Your task to perform on an android device: open sync settings in chrome Image 0: 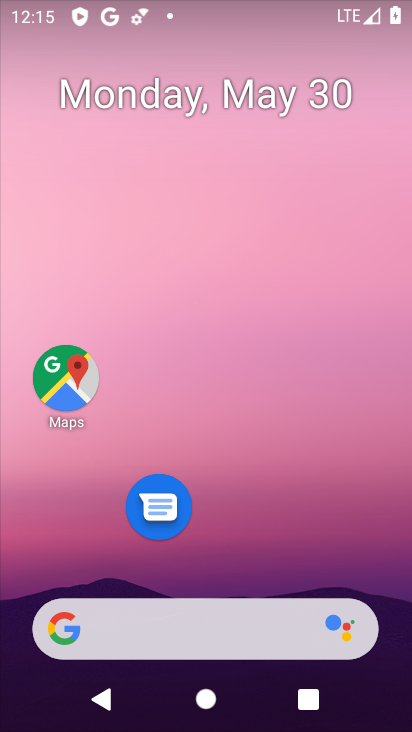
Step 0: drag from (255, 561) to (366, 54)
Your task to perform on an android device: open sync settings in chrome Image 1: 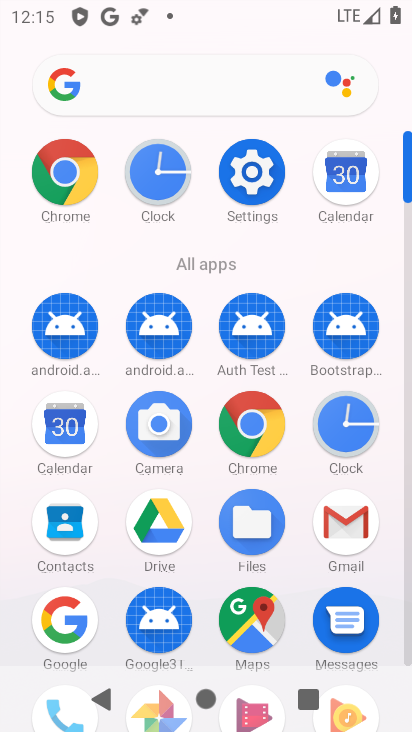
Step 1: click (249, 411)
Your task to perform on an android device: open sync settings in chrome Image 2: 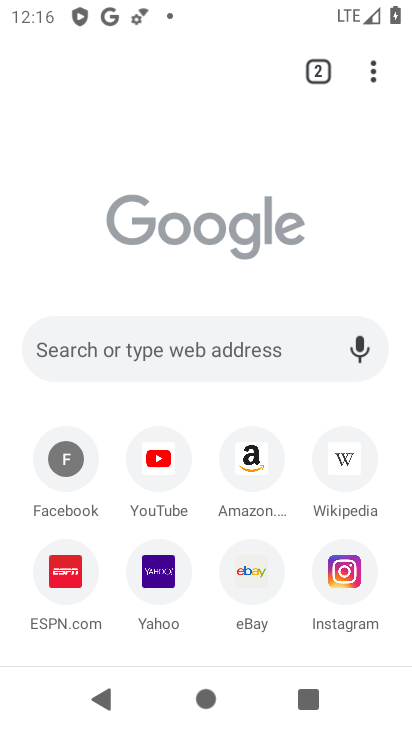
Step 2: drag from (376, 63) to (128, 494)
Your task to perform on an android device: open sync settings in chrome Image 3: 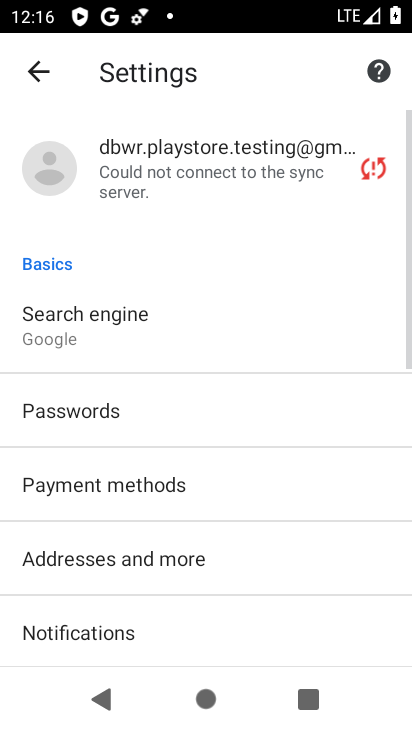
Step 3: click (103, 169)
Your task to perform on an android device: open sync settings in chrome Image 4: 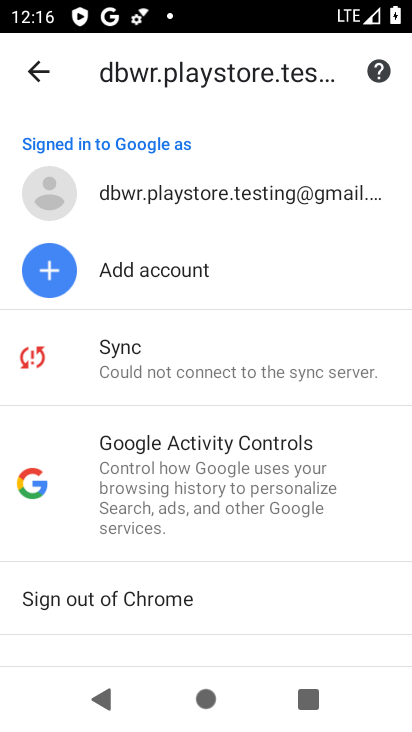
Step 4: click (115, 365)
Your task to perform on an android device: open sync settings in chrome Image 5: 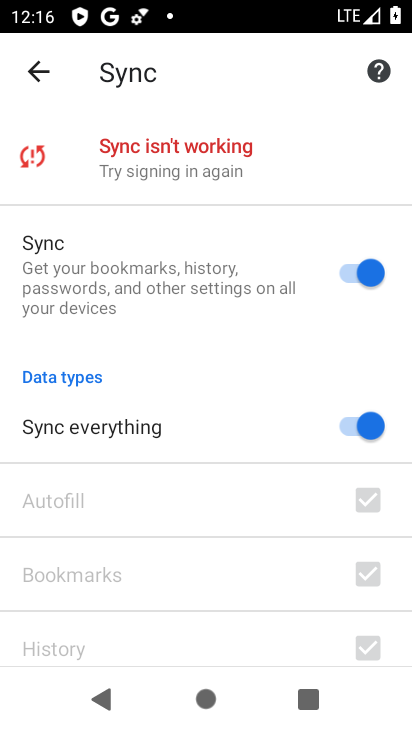
Step 5: task complete